Your task to perform on an android device: Search for Italian restaurants on Maps Image 0: 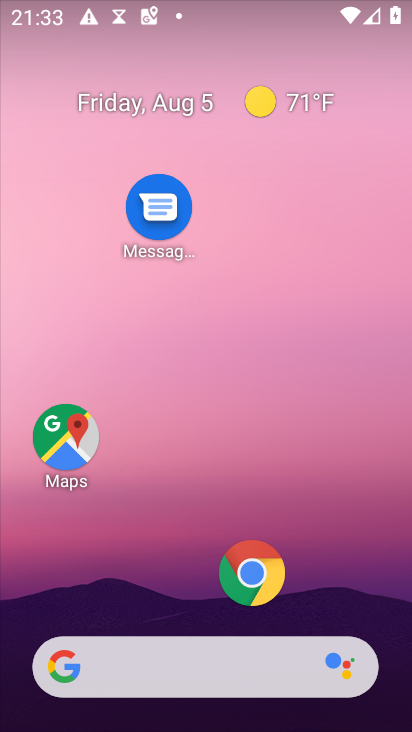
Step 0: press home button
Your task to perform on an android device: Search for Italian restaurants on Maps Image 1: 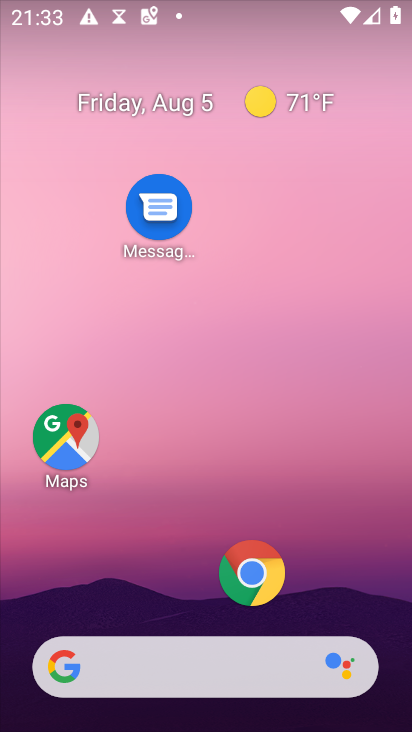
Step 1: click (64, 434)
Your task to perform on an android device: Search for Italian restaurants on Maps Image 2: 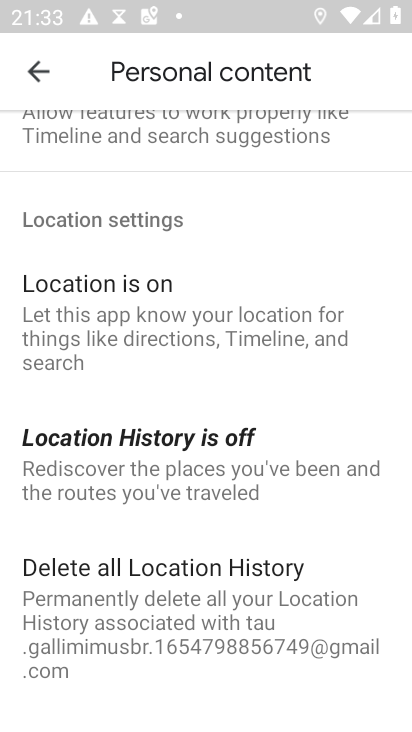
Step 2: click (38, 68)
Your task to perform on an android device: Search for Italian restaurants on Maps Image 3: 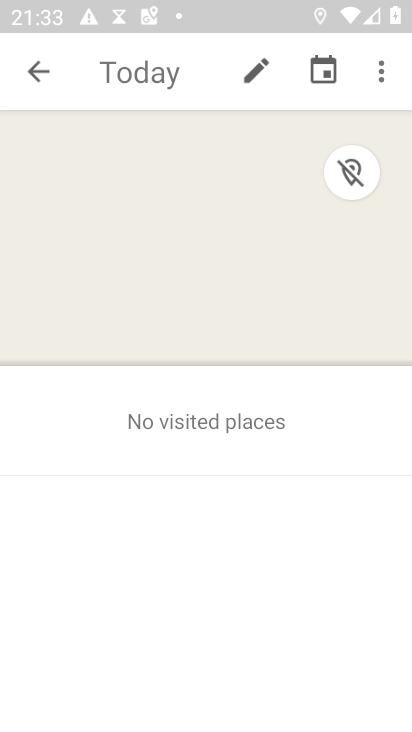
Step 3: click (40, 74)
Your task to perform on an android device: Search for Italian restaurants on Maps Image 4: 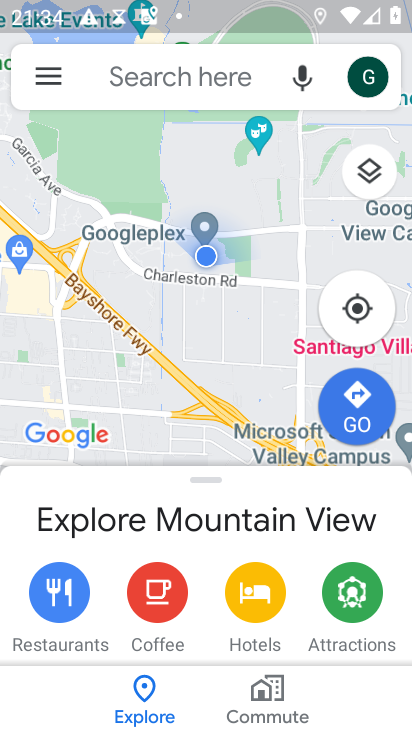
Step 4: click (142, 70)
Your task to perform on an android device: Search for Italian restaurants on Maps Image 5: 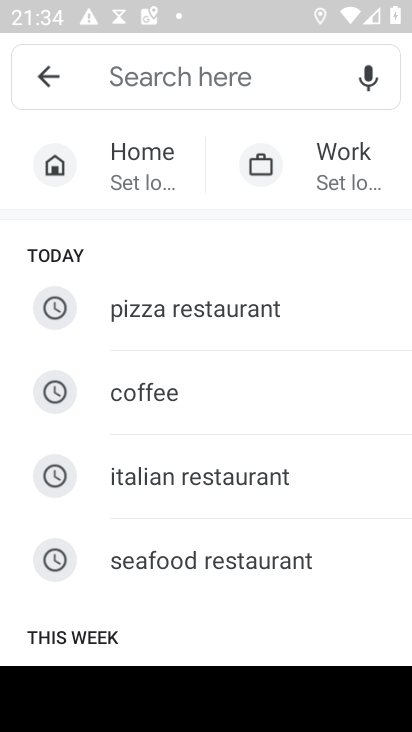
Step 5: click (169, 473)
Your task to perform on an android device: Search for Italian restaurants on Maps Image 6: 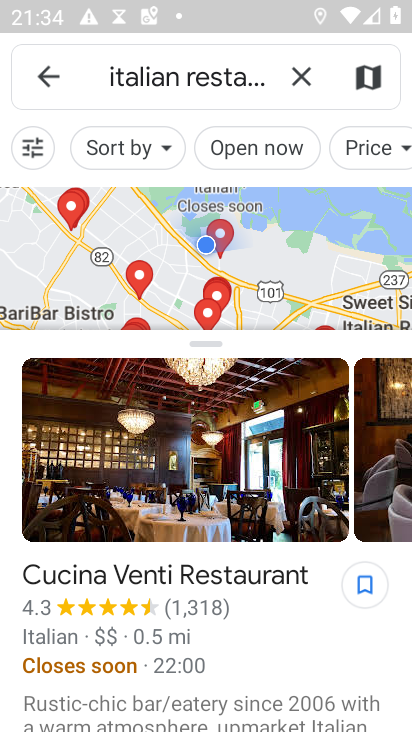
Step 6: task complete